Your task to perform on an android device: install app "Viber Messenger" Image 0: 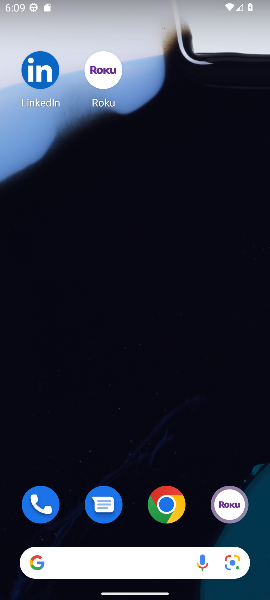
Step 0: drag from (143, 440) to (48, 10)
Your task to perform on an android device: install app "Viber Messenger" Image 1: 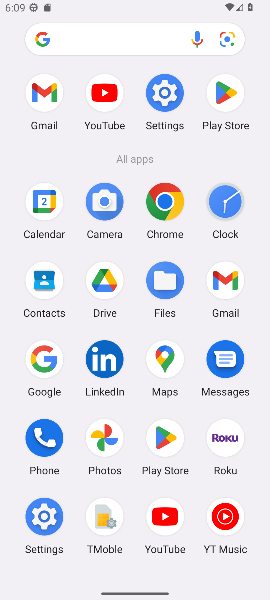
Step 1: click (162, 428)
Your task to perform on an android device: install app "Viber Messenger" Image 2: 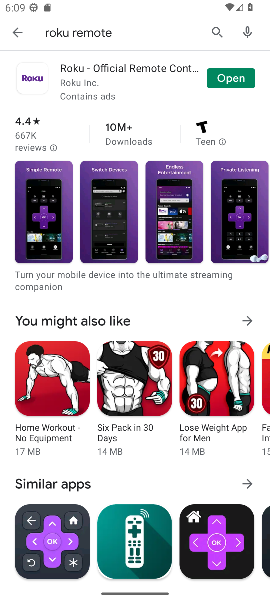
Step 2: click (162, 428)
Your task to perform on an android device: install app "Viber Messenger" Image 3: 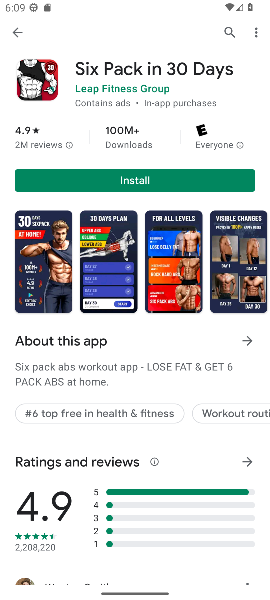
Step 3: click (226, 25)
Your task to perform on an android device: install app "Viber Messenger" Image 4: 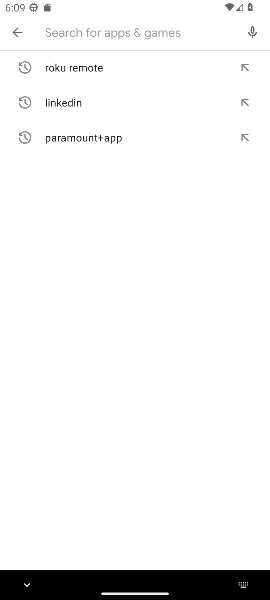
Step 4: type "viber"
Your task to perform on an android device: install app "Viber Messenger" Image 5: 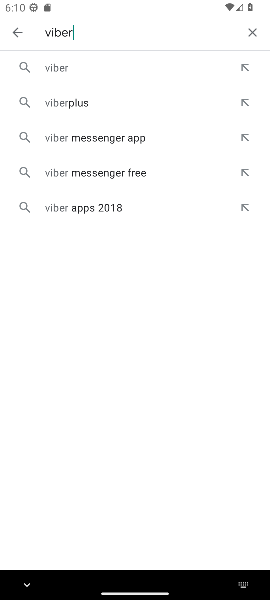
Step 5: click (129, 61)
Your task to perform on an android device: install app "Viber Messenger" Image 6: 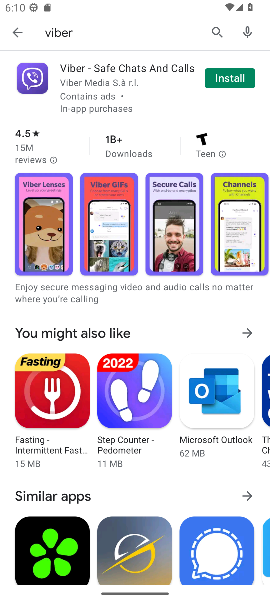
Step 6: click (219, 71)
Your task to perform on an android device: install app "Viber Messenger" Image 7: 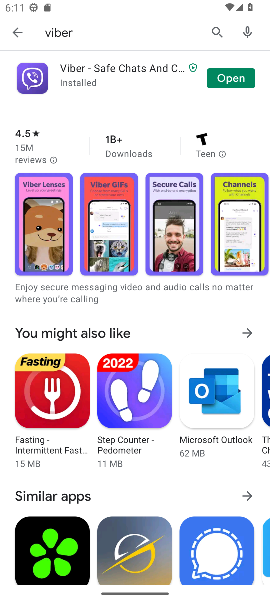
Step 7: task complete